Your task to perform on an android device: Clear all items from cart on newegg. Search for "logitech g pro" on newegg, select the first entry, and add it to the cart. Image 0: 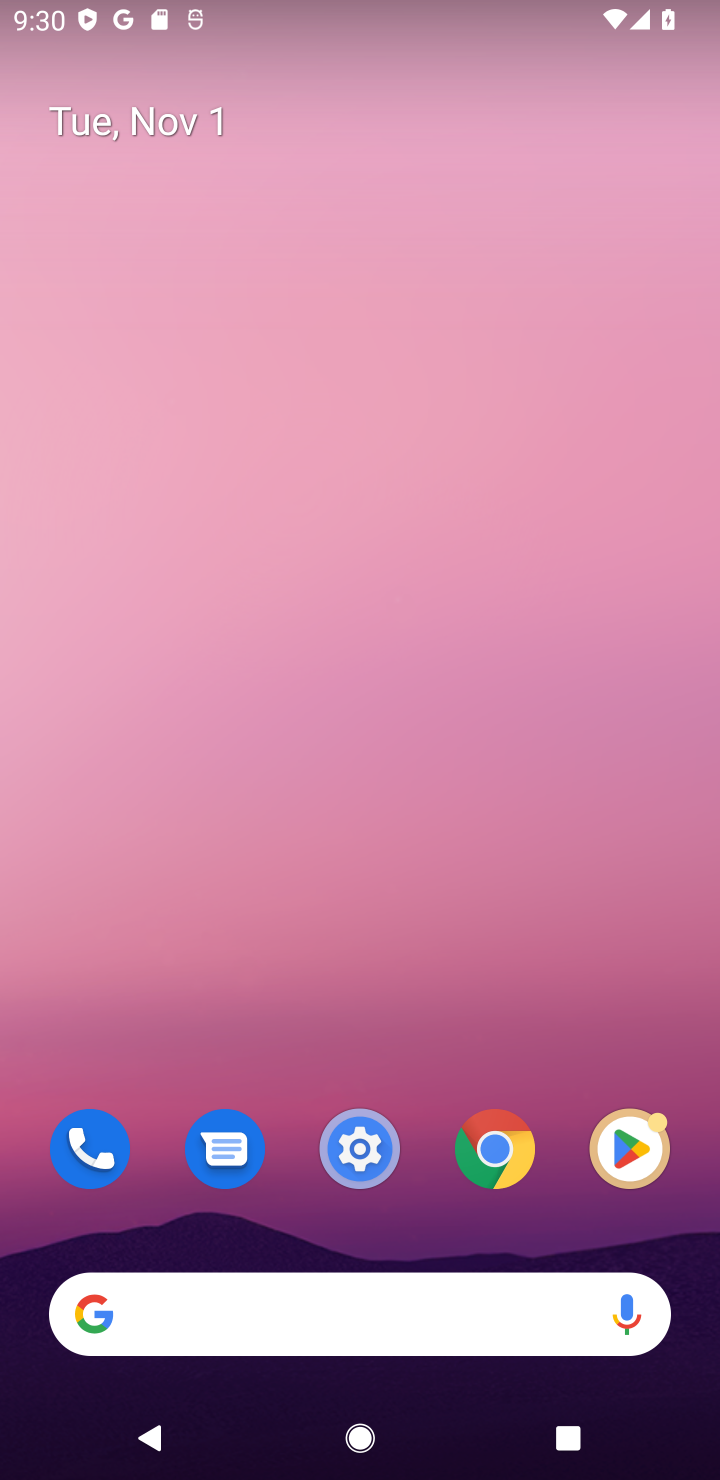
Step 0: press home button
Your task to perform on an android device: Clear all items from cart on newegg. Search for "logitech g pro" on newegg, select the first entry, and add it to the cart. Image 1: 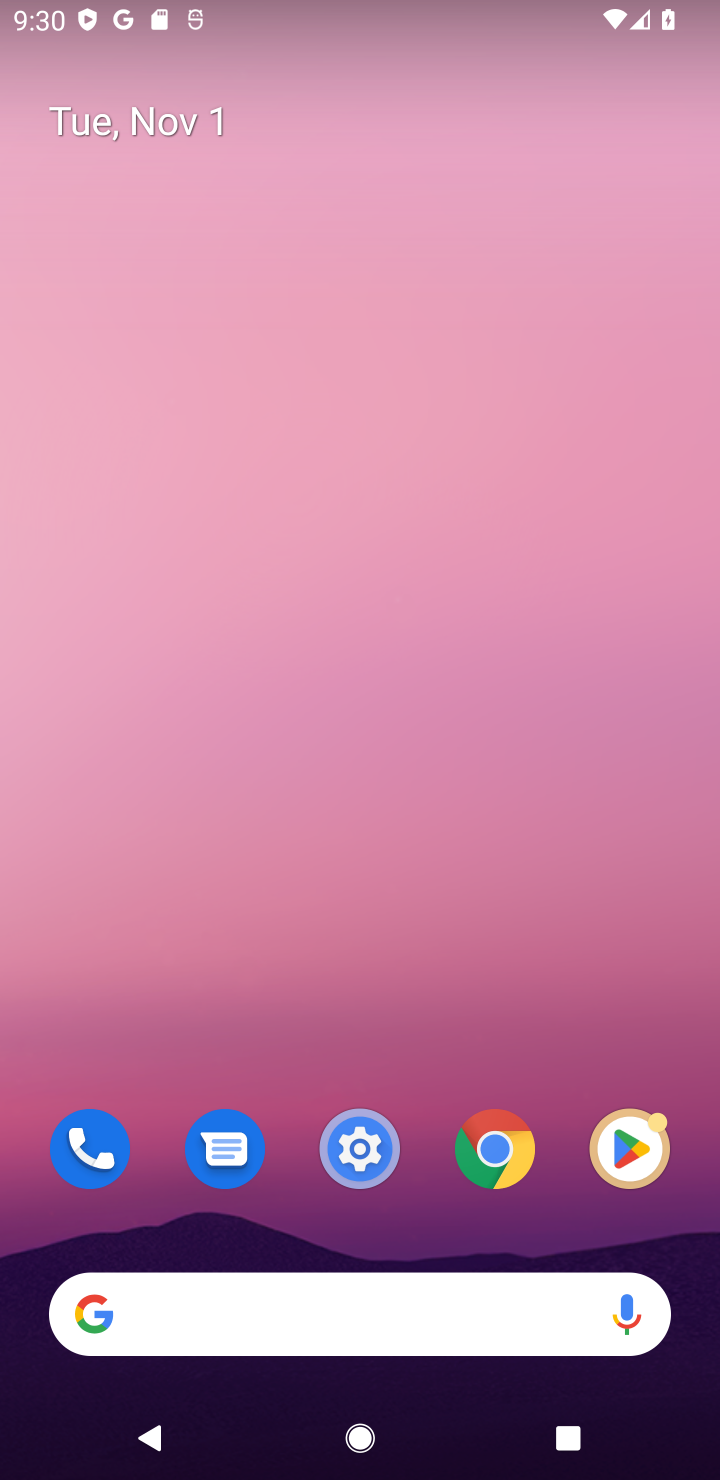
Step 1: click (178, 1298)
Your task to perform on an android device: Clear all items from cart on newegg. Search for "logitech g pro" on newegg, select the first entry, and add it to the cart. Image 2: 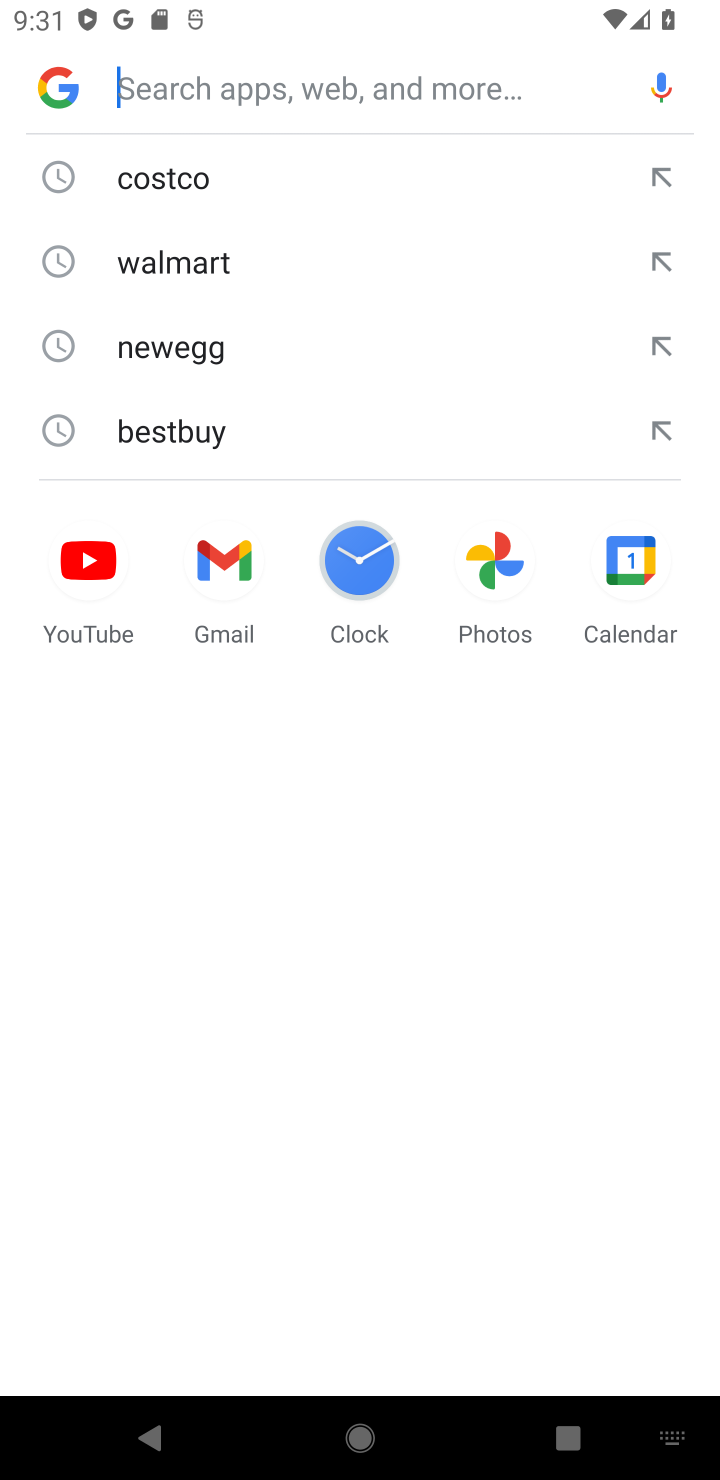
Step 2: type "newegg"
Your task to perform on an android device: Clear all items from cart on newegg. Search for "logitech g pro" on newegg, select the first entry, and add it to the cart. Image 3: 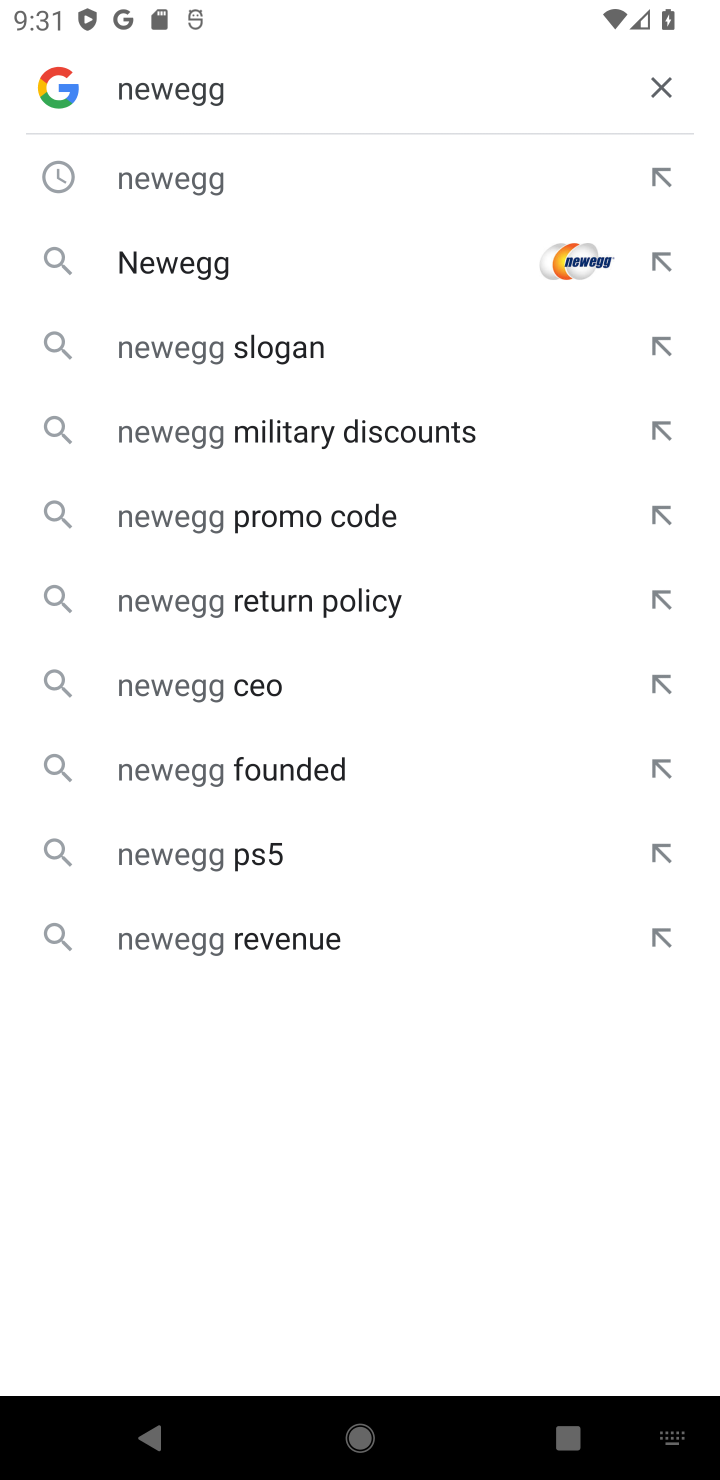
Step 3: click (190, 180)
Your task to perform on an android device: Clear all items from cart on newegg. Search for "logitech g pro" on newegg, select the first entry, and add it to the cart. Image 4: 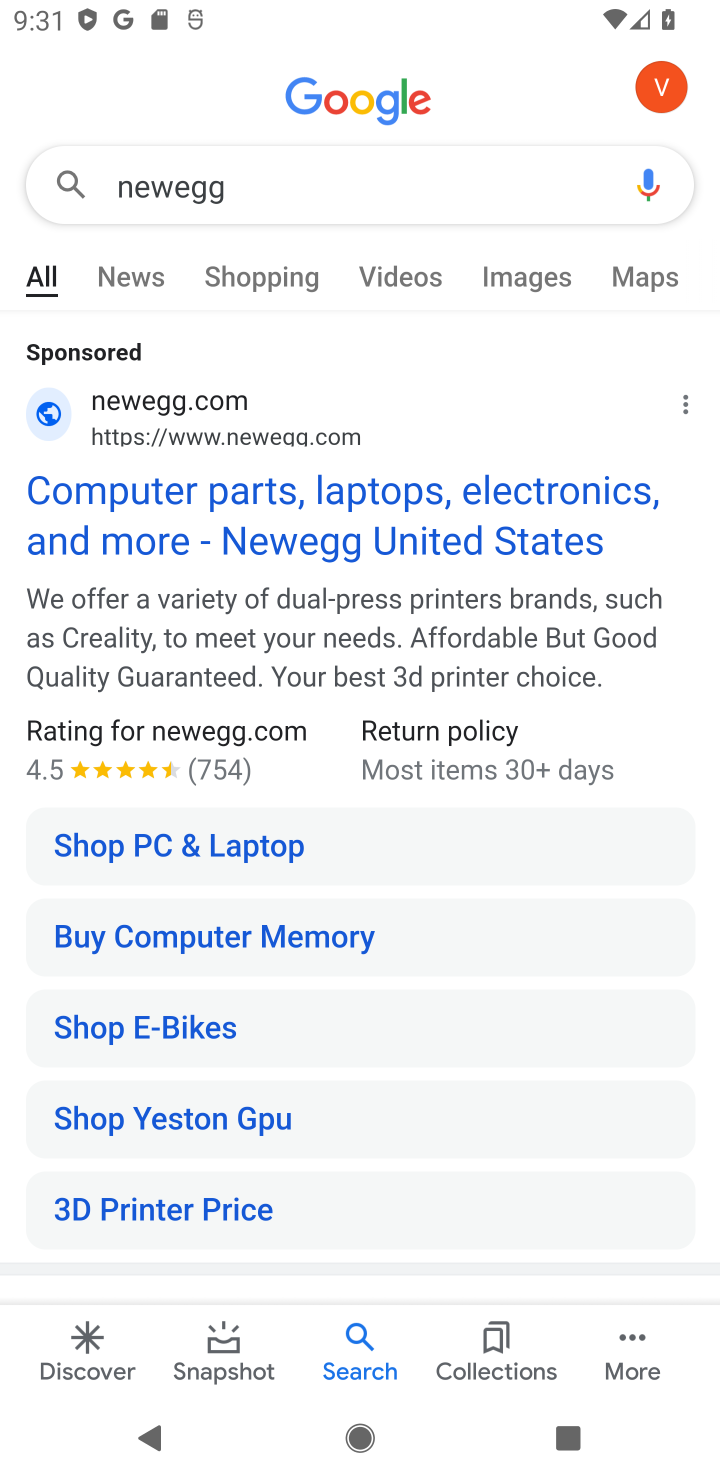
Step 4: drag from (490, 1096) to (574, 408)
Your task to perform on an android device: Clear all items from cart on newegg. Search for "logitech g pro" on newegg, select the first entry, and add it to the cart. Image 5: 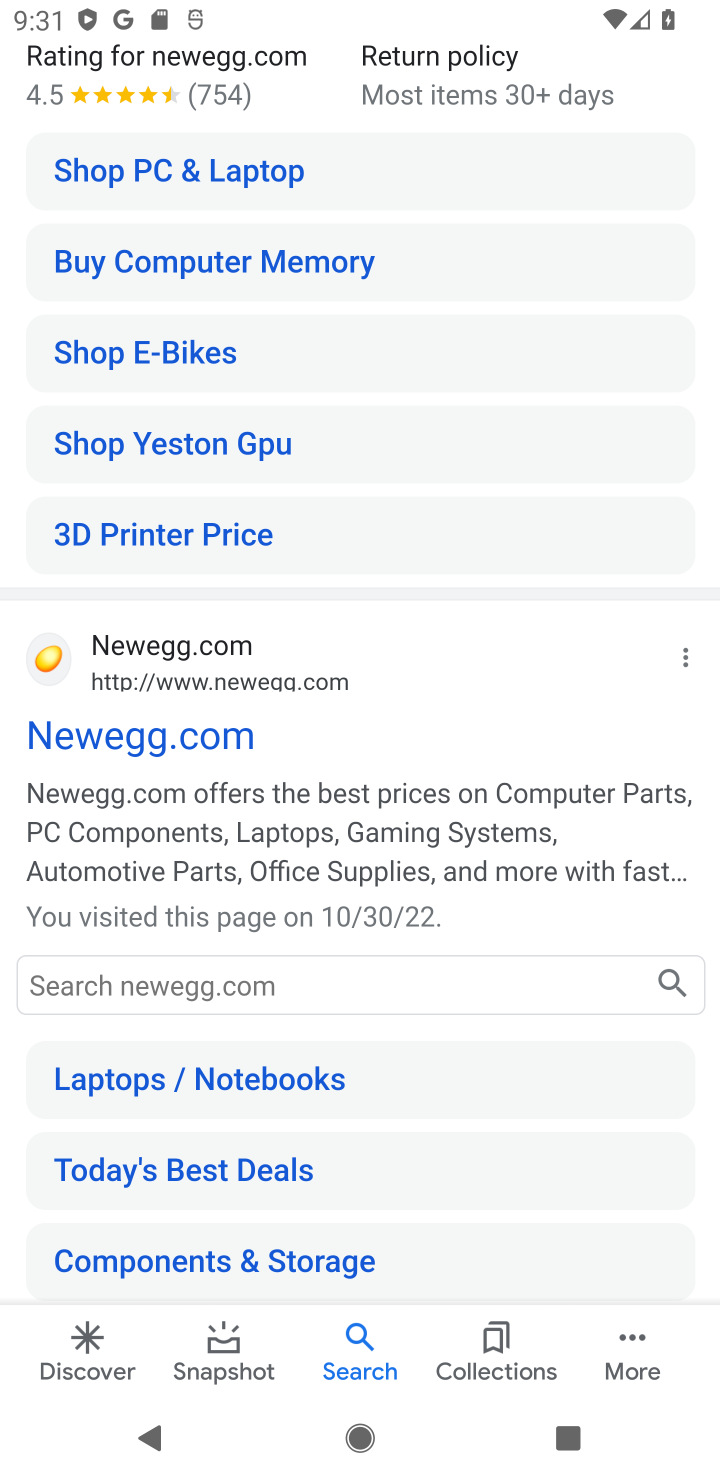
Step 5: click (143, 742)
Your task to perform on an android device: Clear all items from cart on newegg. Search for "logitech g pro" on newegg, select the first entry, and add it to the cart. Image 6: 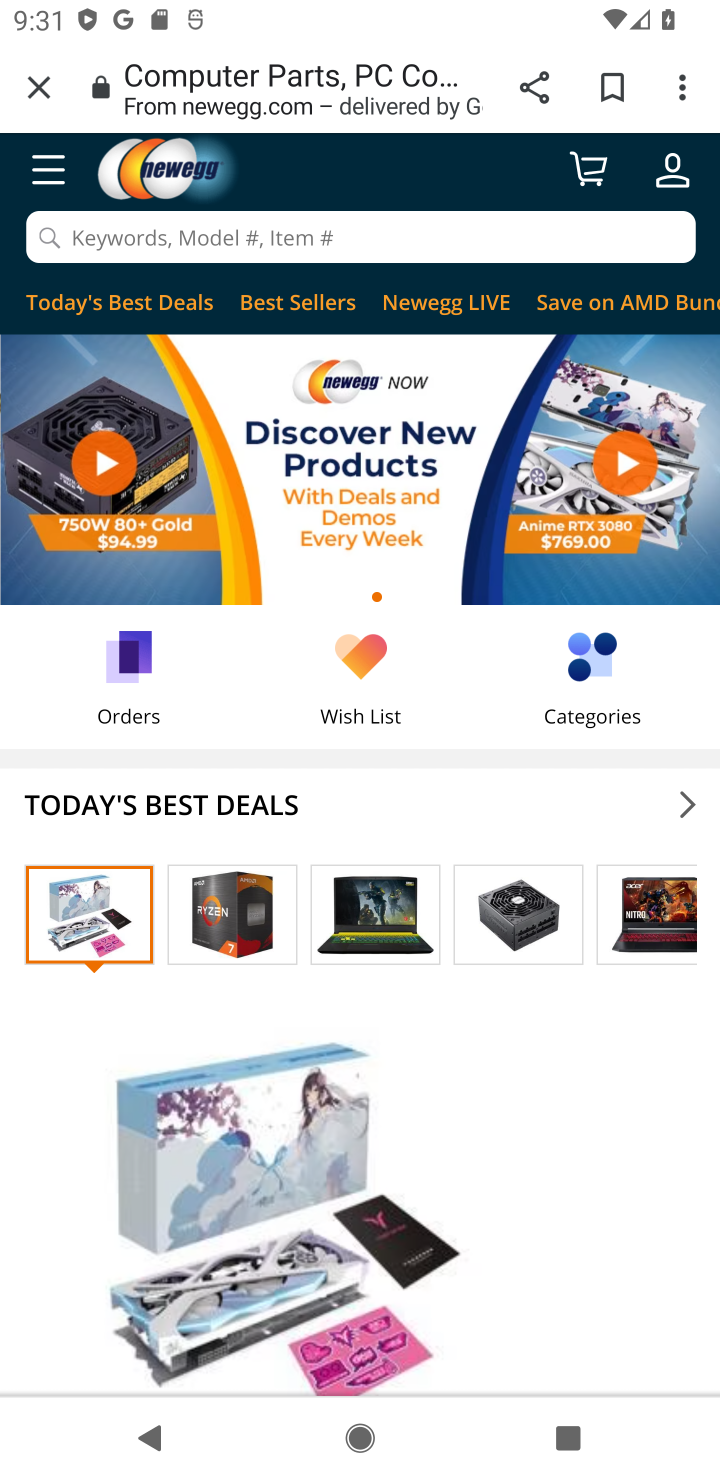
Step 6: click (596, 169)
Your task to perform on an android device: Clear all items from cart on newegg. Search for "logitech g pro" on newegg, select the first entry, and add it to the cart. Image 7: 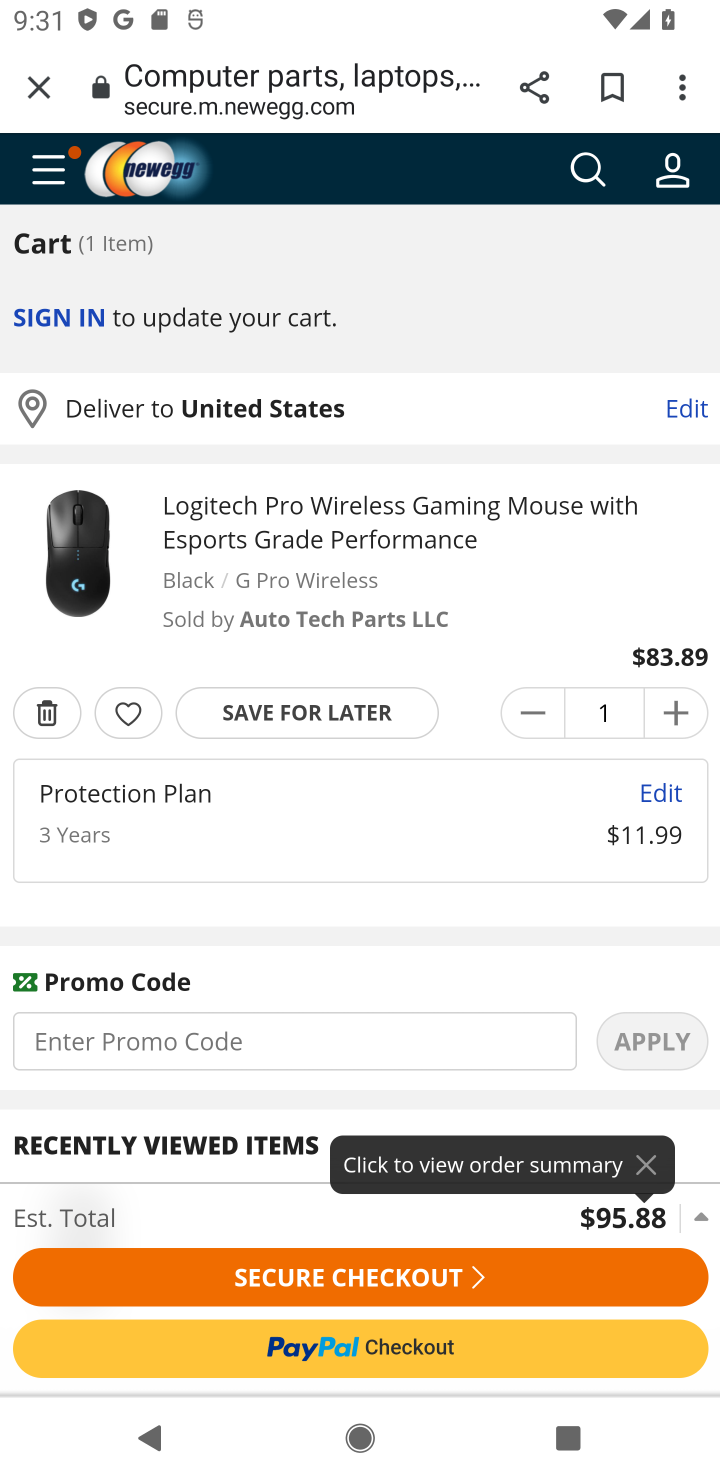
Step 7: click (43, 716)
Your task to perform on an android device: Clear all items from cart on newegg. Search for "logitech g pro" on newegg, select the first entry, and add it to the cart. Image 8: 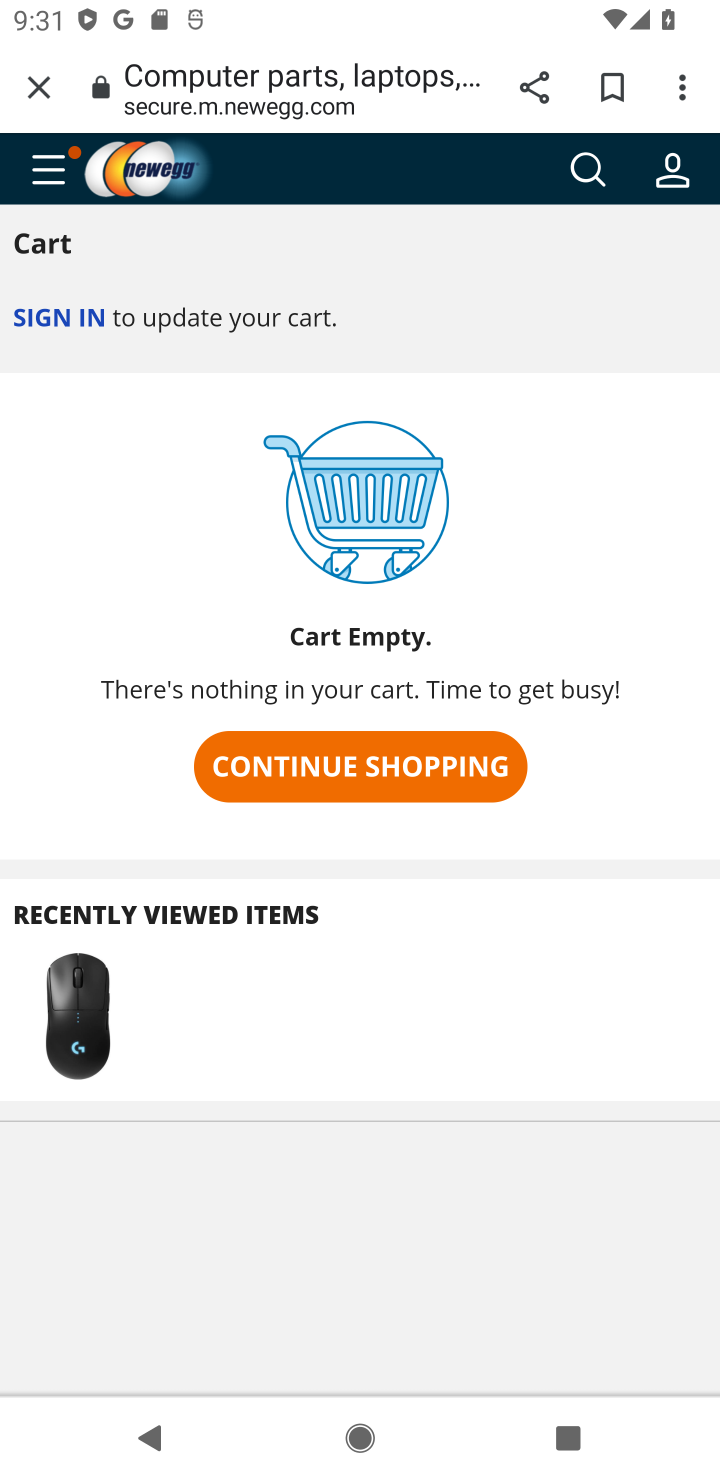
Step 8: click (591, 165)
Your task to perform on an android device: Clear all items from cart on newegg. Search for "logitech g pro" on newegg, select the first entry, and add it to the cart. Image 9: 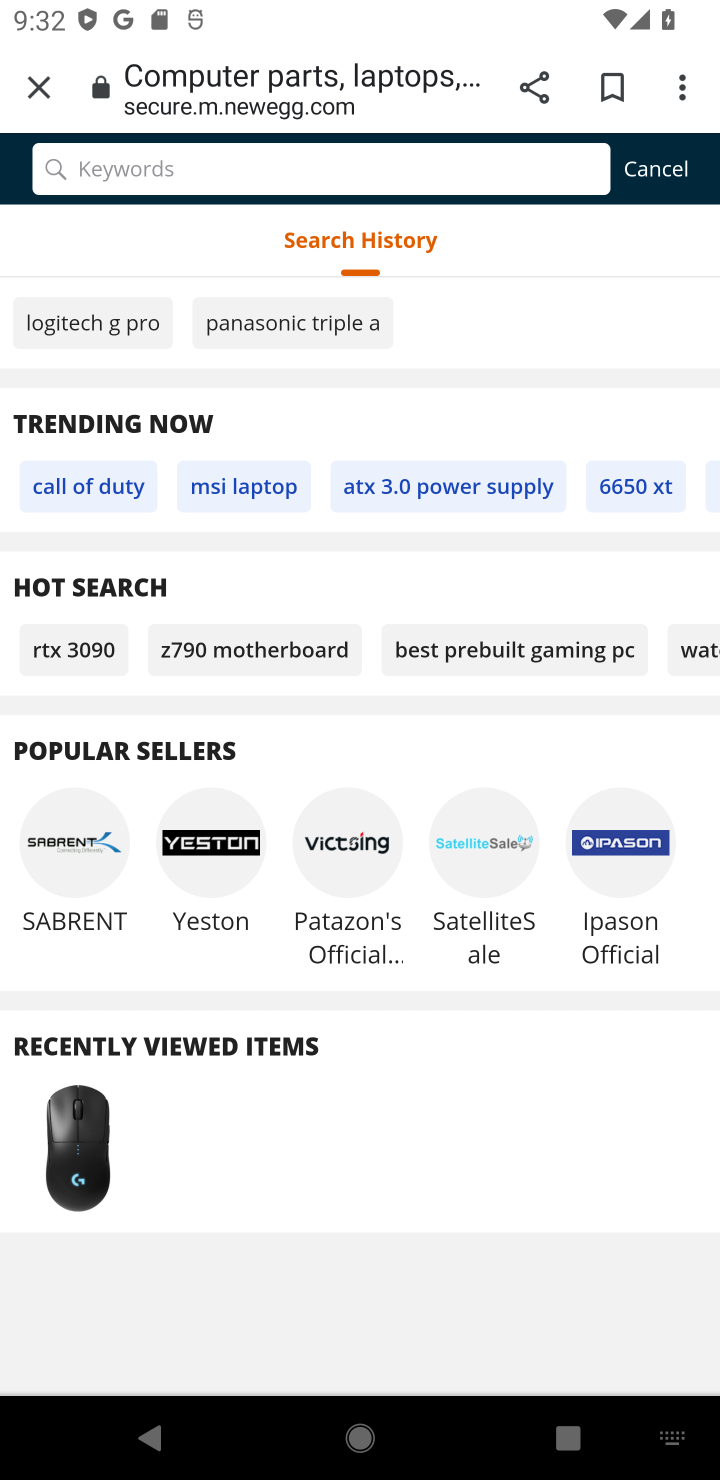
Step 9: press enter
Your task to perform on an android device: Clear all items from cart on newegg. Search for "logitech g pro" on newegg, select the first entry, and add it to the cart. Image 10: 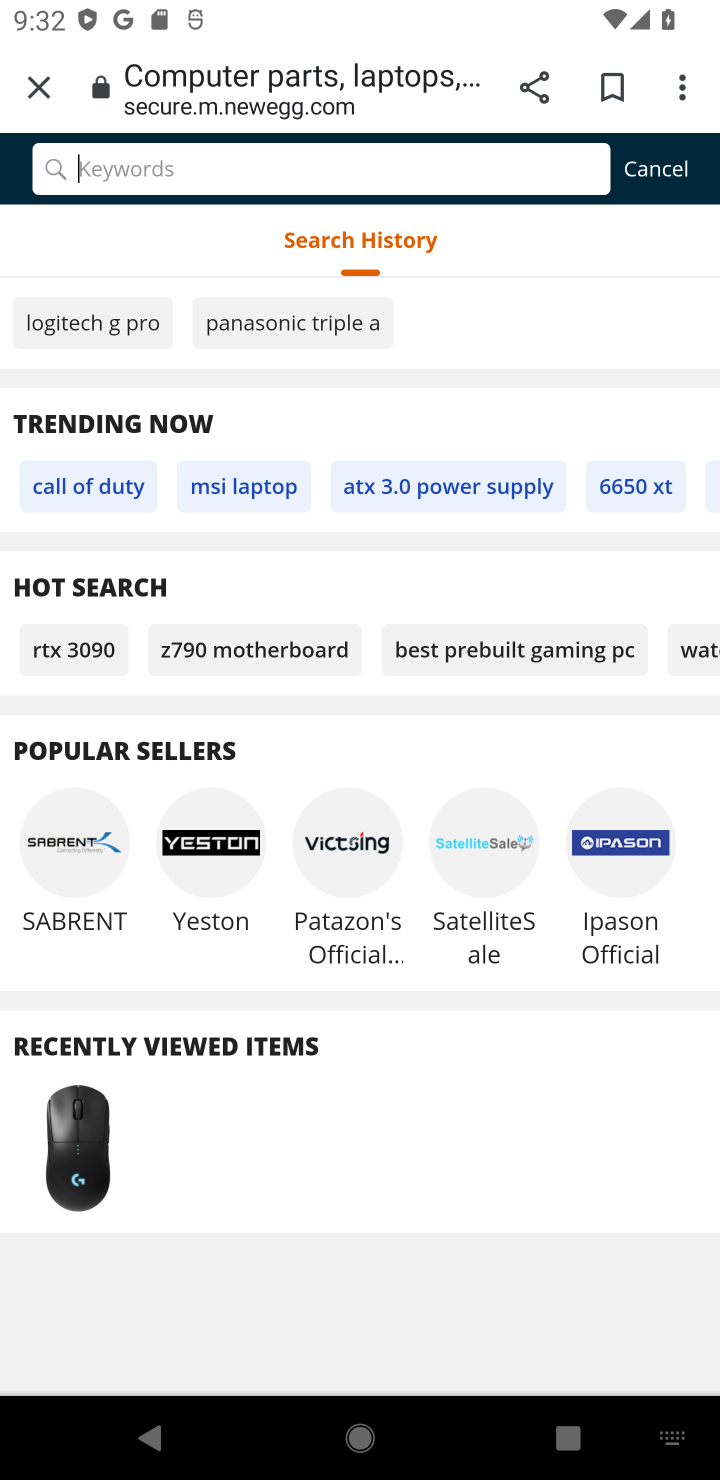
Step 10: type "logitech g pro"
Your task to perform on an android device: Clear all items from cart on newegg. Search for "logitech g pro" on newegg, select the first entry, and add it to the cart. Image 11: 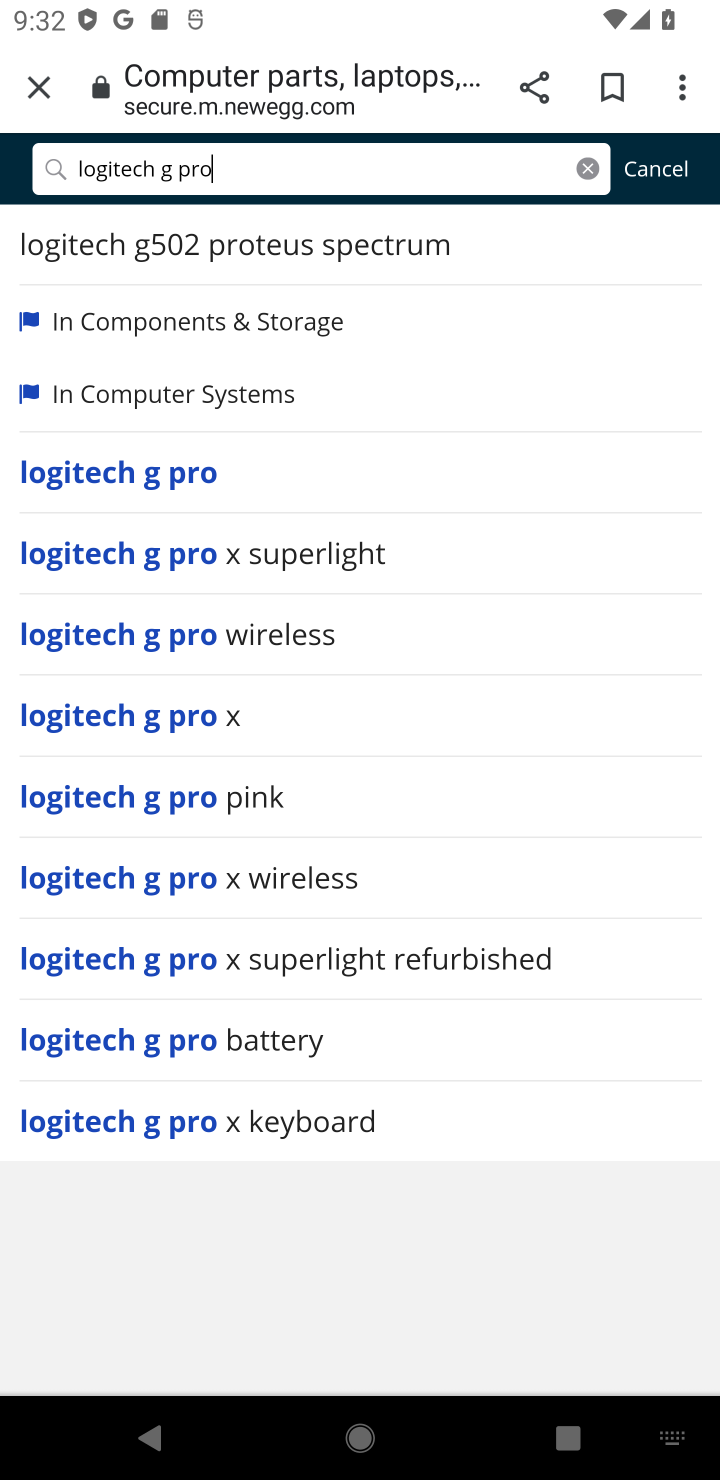
Step 11: click (174, 468)
Your task to perform on an android device: Clear all items from cart on newegg. Search for "logitech g pro" on newegg, select the first entry, and add it to the cart. Image 12: 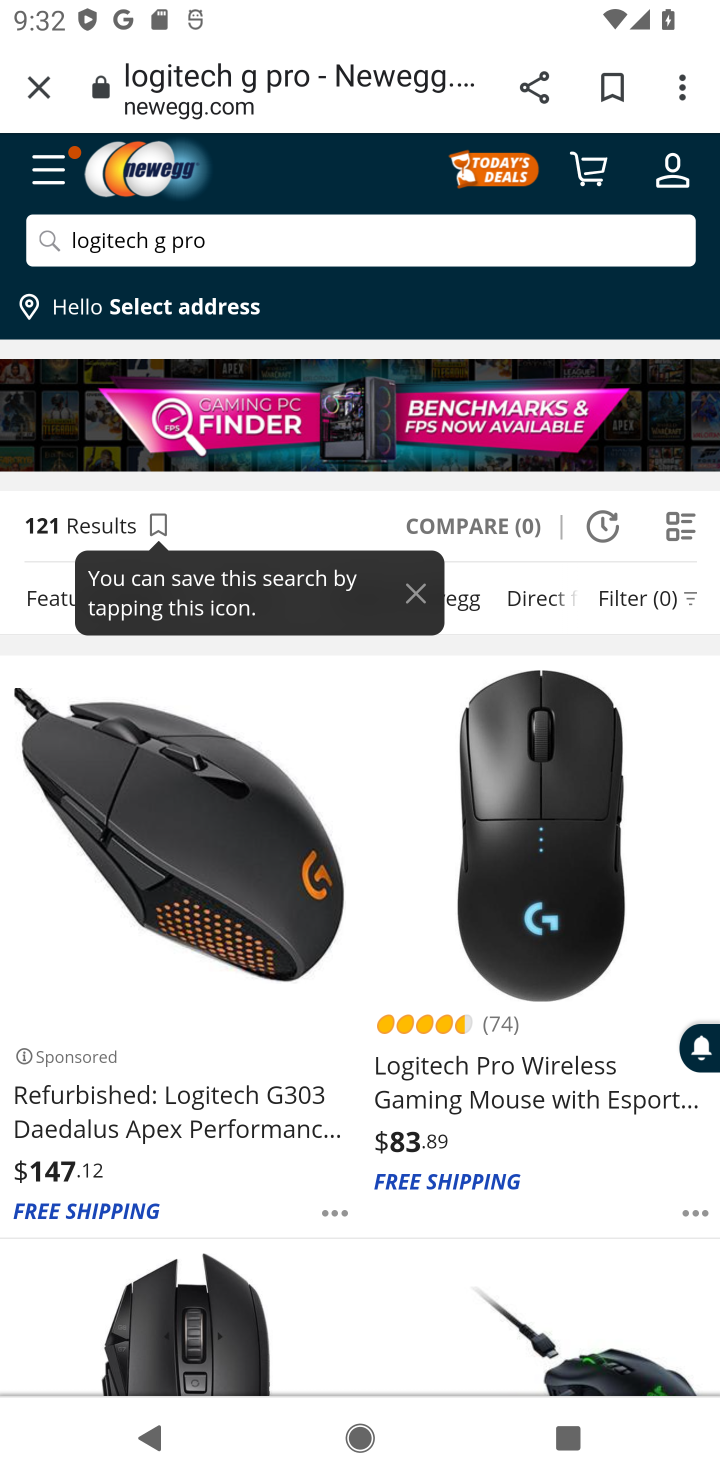
Step 12: click (478, 1081)
Your task to perform on an android device: Clear all items from cart on newegg. Search for "logitech g pro" on newegg, select the first entry, and add it to the cart. Image 13: 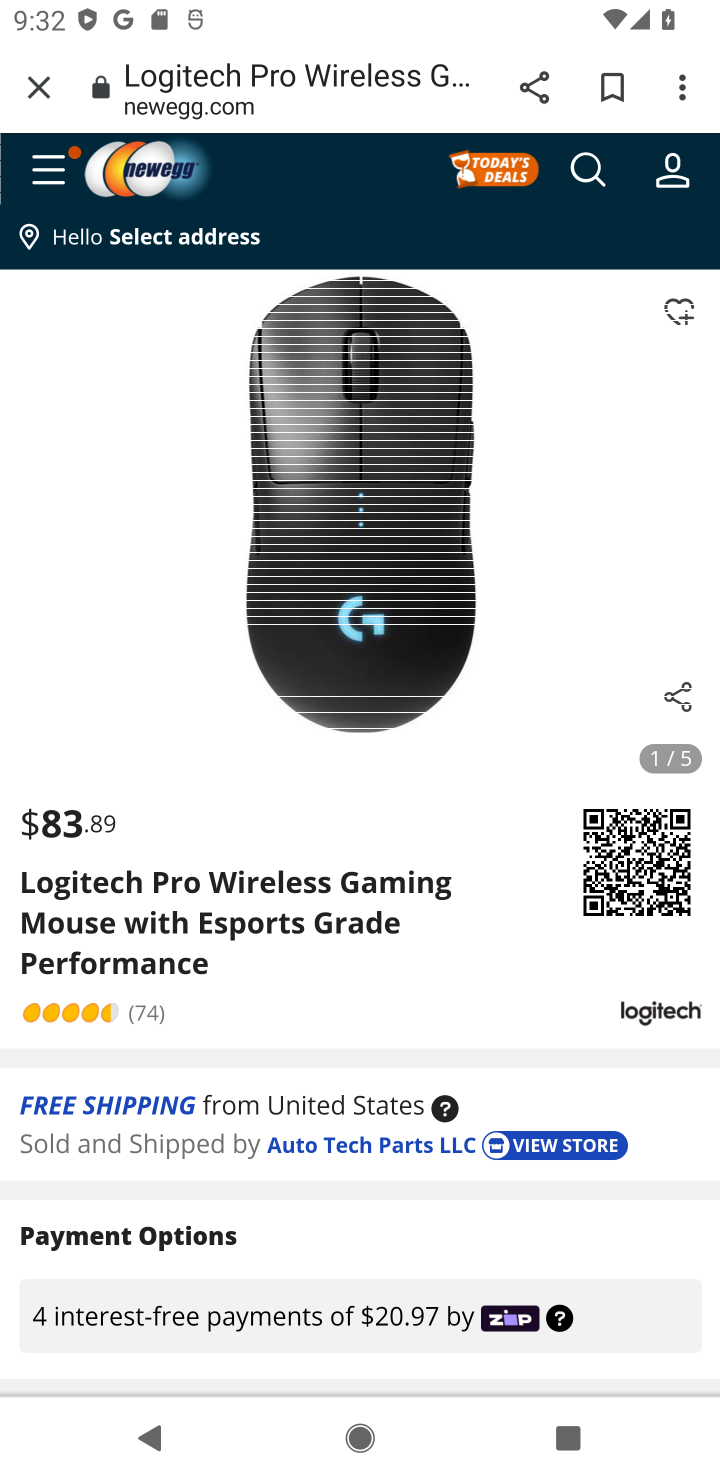
Step 13: drag from (330, 1048) to (338, 611)
Your task to perform on an android device: Clear all items from cart on newegg. Search for "logitech g pro" on newegg, select the first entry, and add it to the cart. Image 14: 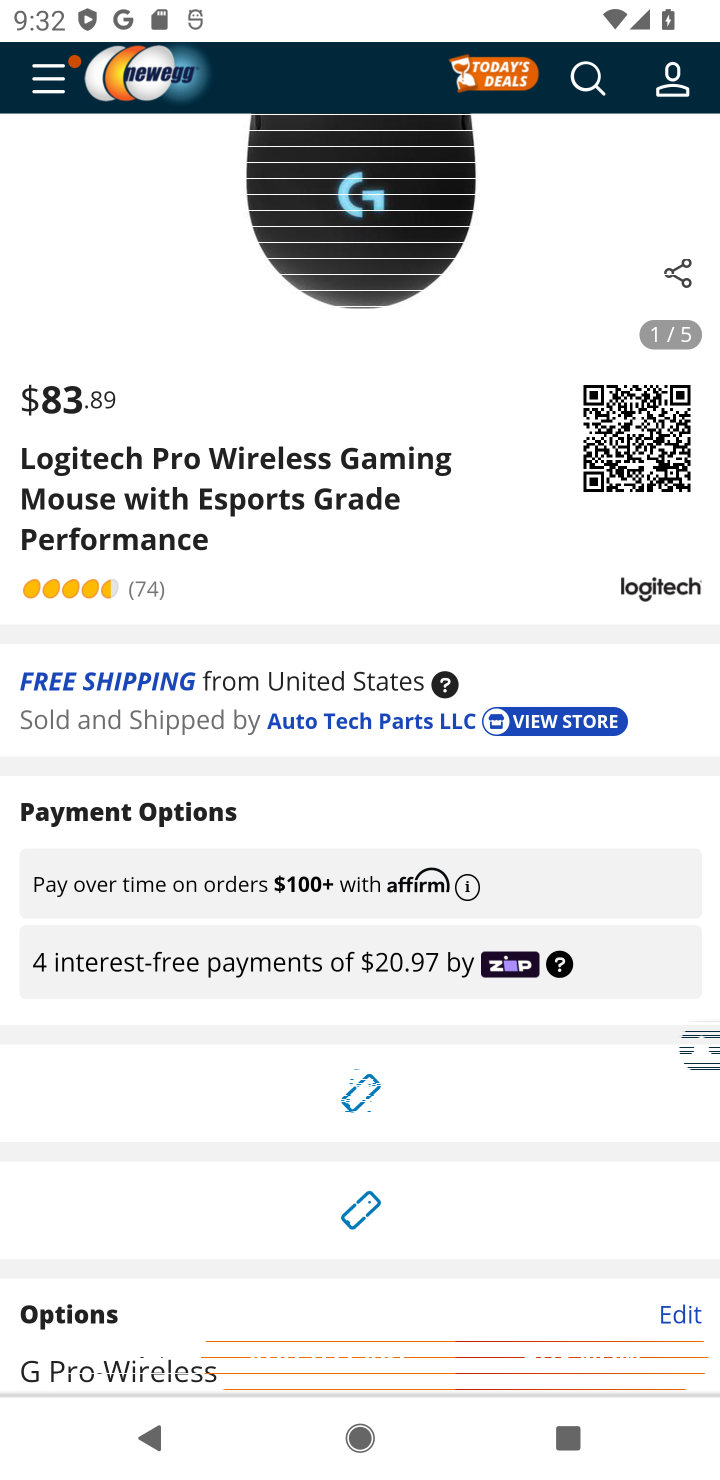
Step 14: click (288, 1366)
Your task to perform on an android device: Clear all items from cart on newegg. Search for "logitech g pro" on newegg, select the first entry, and add it to the cart. Image 15: 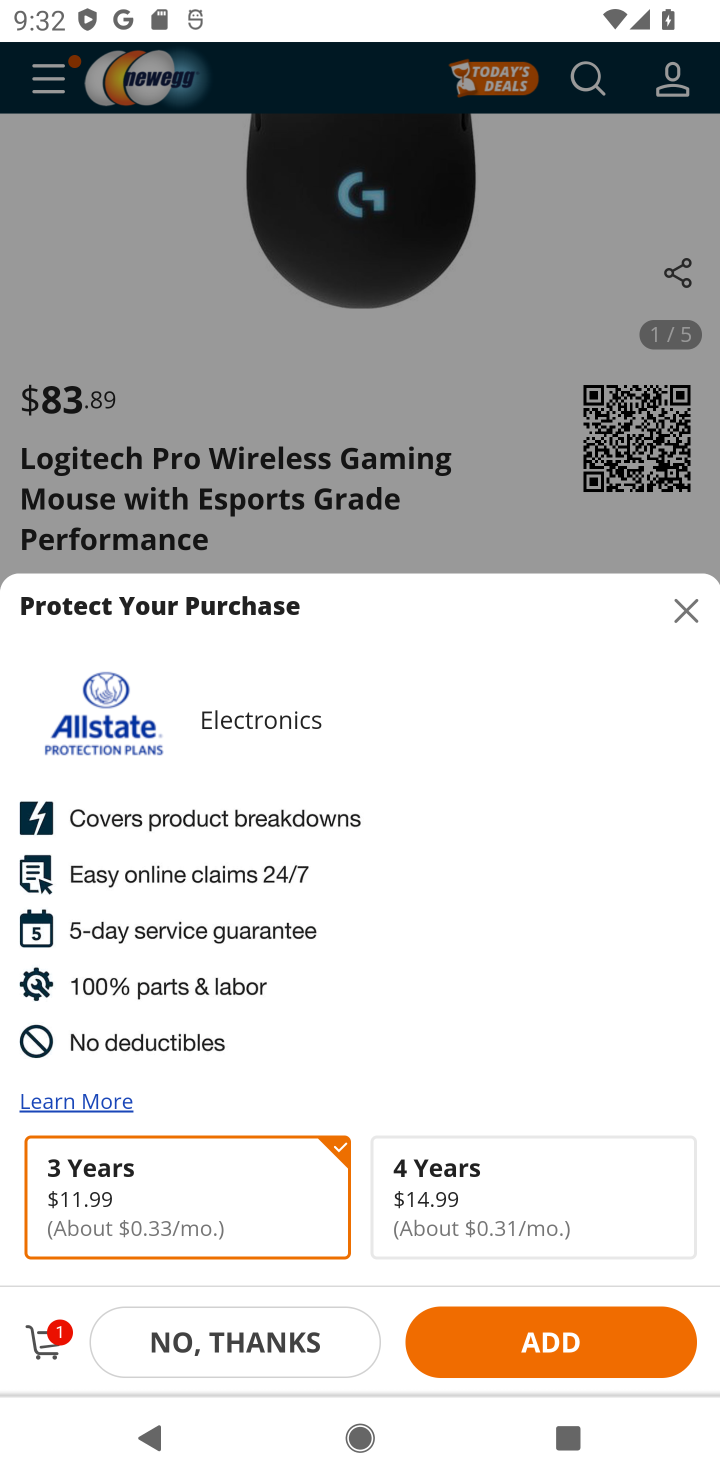
Step 15: click (588, 1322)
Your task to perform on an android device: Clear all items from cart on newegg. Search for "logitech g pro" on newegg, select the first entry, and add it to the cart. Image 16: 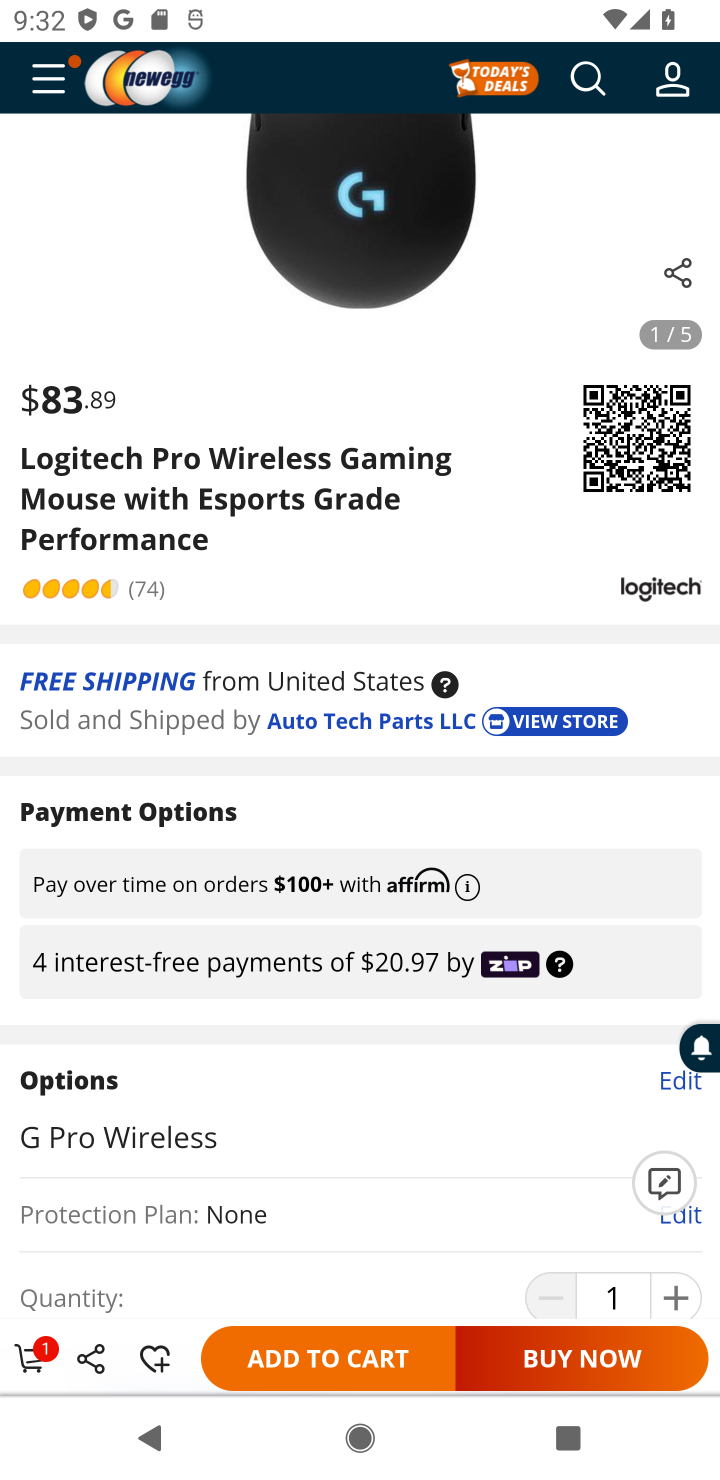
Step 16: task complete